Your task to perform on an android device: Open privacy settings Image 0: 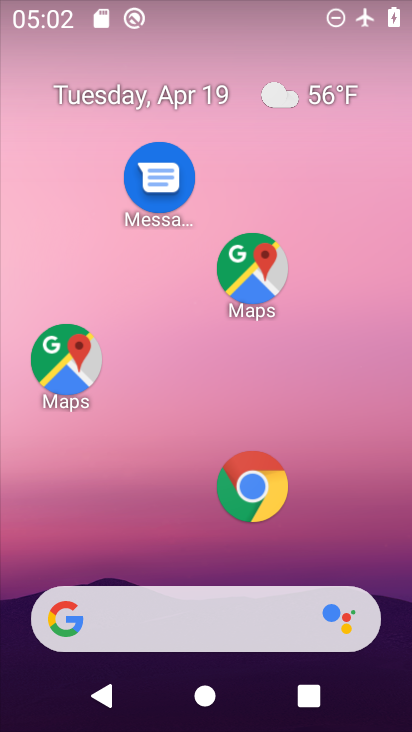
Step 0: drag from (271, 559) to (344, 133)
Your task to perform on an android device: Open privacy settings Image 1: 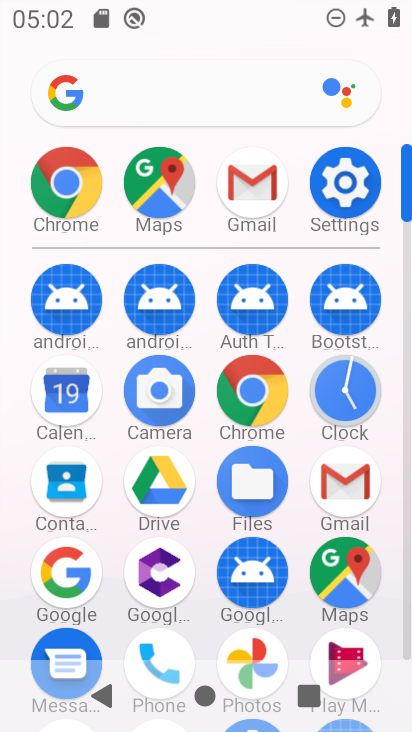
Step 1: click (331, 210)
Your task to perform on an android device: Open privacy settings Image 2: 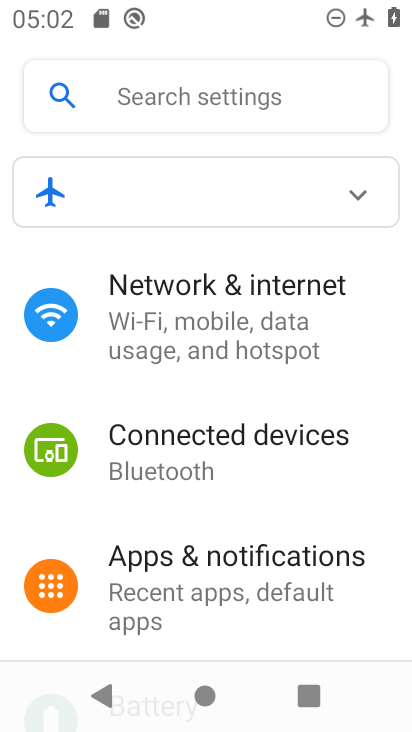
Step 2: drag from (260, 411) to (350, 45)
Your task to perform on an android device: Open privacy settings Image 3: 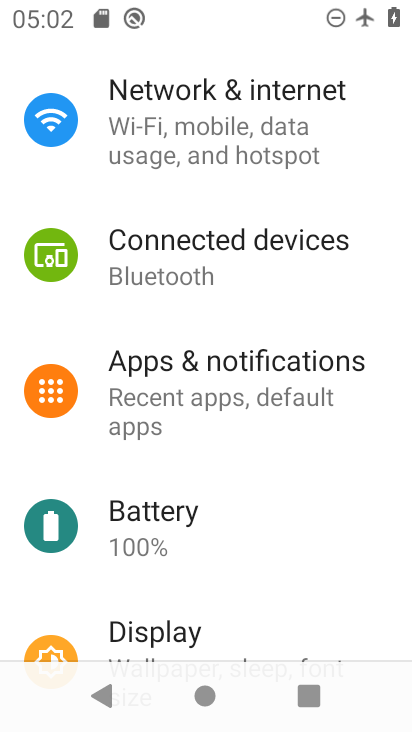
Step 3: drag from (243, 566) to (292, 115)
Your task to perform on an android device: Open privacy settings Image 4: 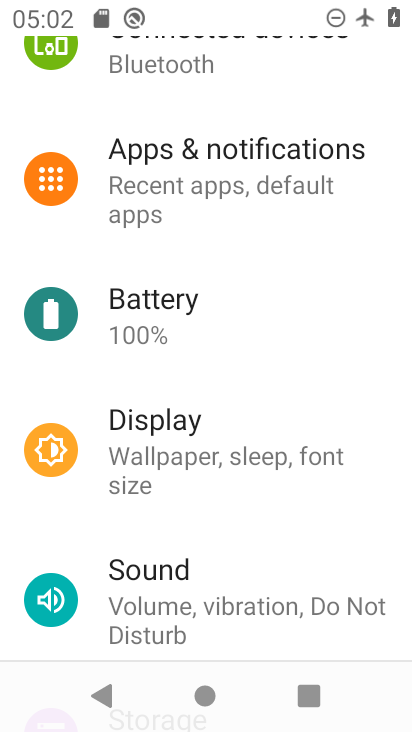
Step 4: drag from (244, 425) to (317, 56)
Your task to perform on an android device: Open privacy settings Image 5: 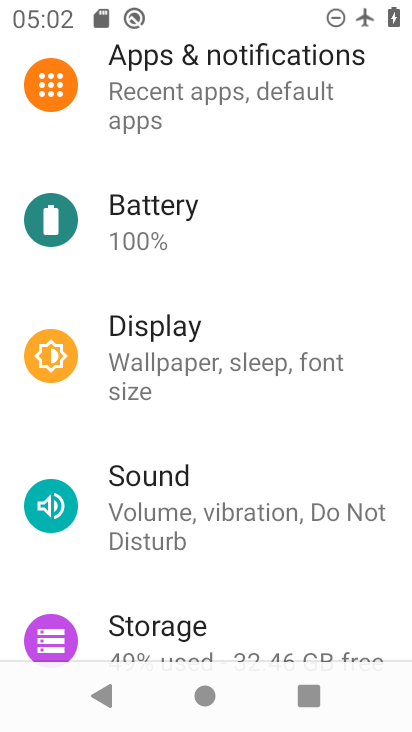
Step 5: drag from (206, 614) to (309, 103)
Your task to perform on an android device: Open privacy settings Image 6: 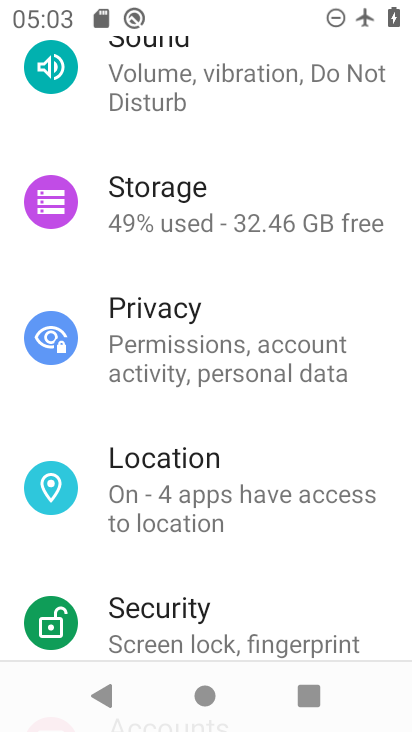
Step 6: drag from (220, 498) to (270, 357)
Your task to perform on an android device: Open privacy settings Image 7: 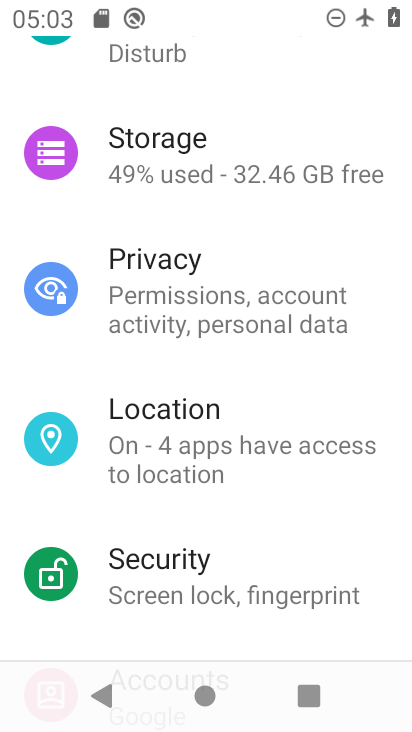
Step 7: click (238, 272)
Your task to perform on an android device: Open privacy settings Image 8: 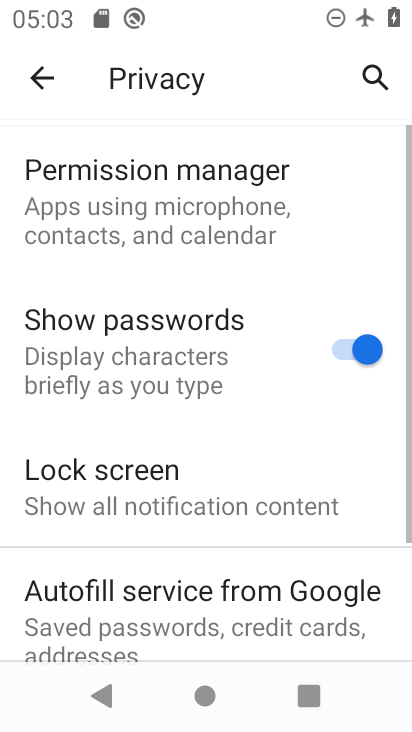
Step 8: task complete